Your task to perform on an android device: Search for Italian restaurants on Maps Image 0: 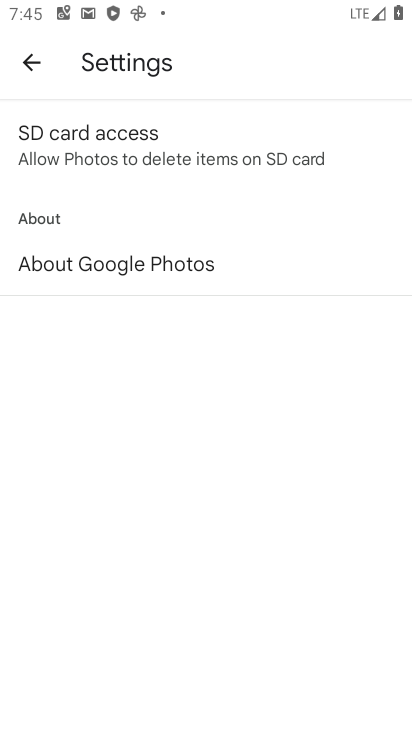
Step 0: press home button
Your task to perform on an android device: Search for Italian restaurants on Maps Image 1: 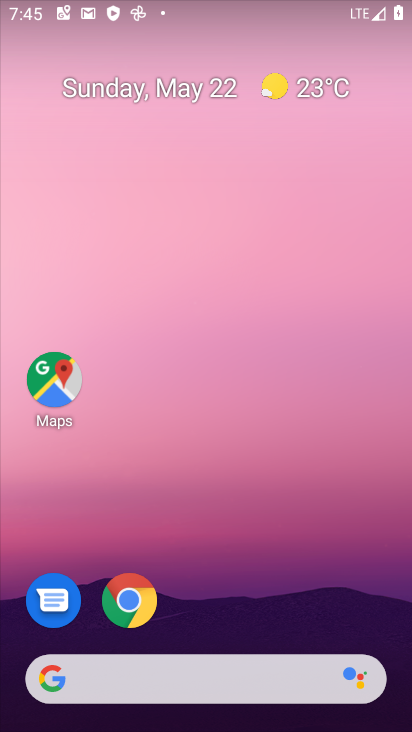
Step 1: drag from (322, 612) to (206, 67)
Your task to perform on an android device: Search for Italian restaurants on Maps Image 2: 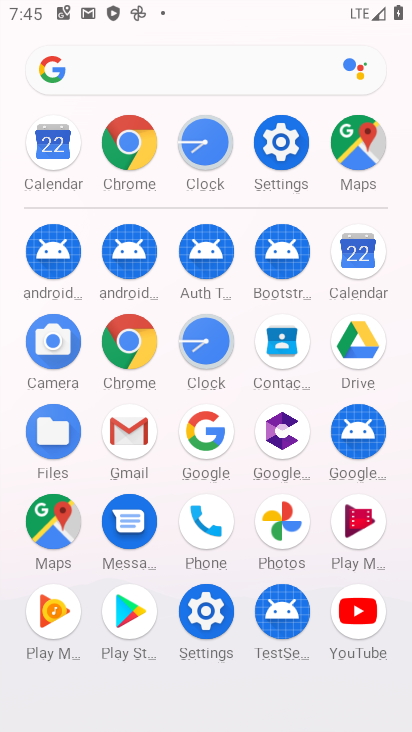
Step 2: click (355, 166)
Your task to perform on an android device: Search for Italian restaurants on Maps Image 3: 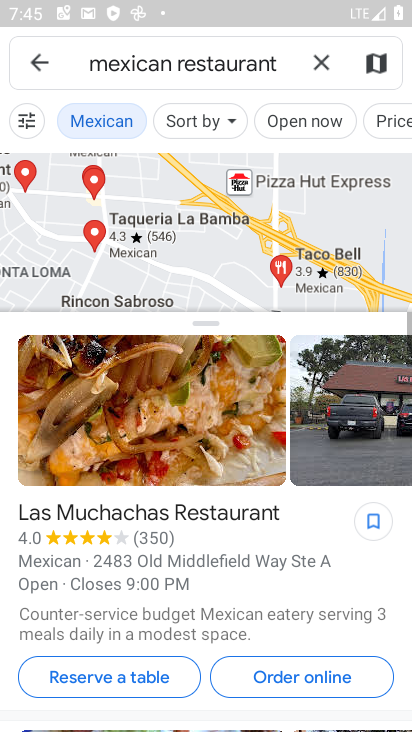
Step 3: click (326, 65)
Your task to perform on an android device: Search for Italian restaurants on Maps Image 4: 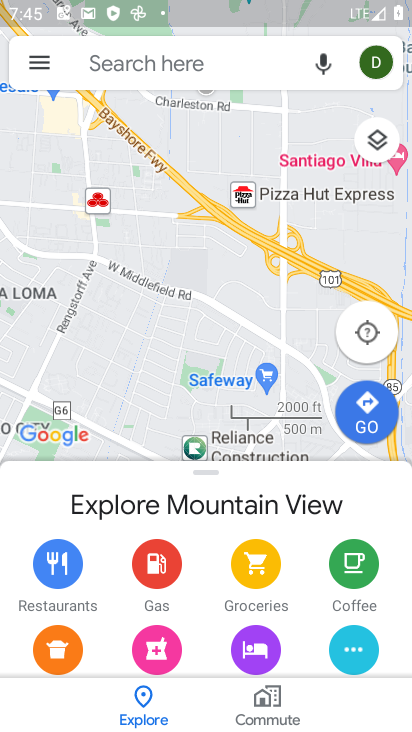
Step 4: click (179, 68)
Your task to perform on an android device: Search for Italian restaurants on Maps Image 5: 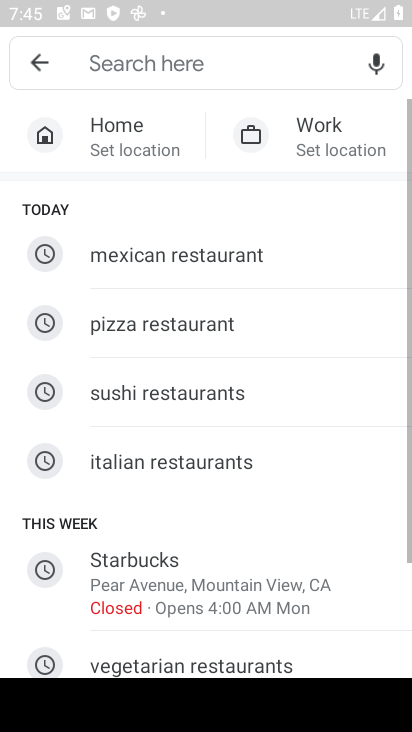
Step 5: click (178, 471)
Your task to perform on an android device: Search for Italian restaurants on Maps Image 6: 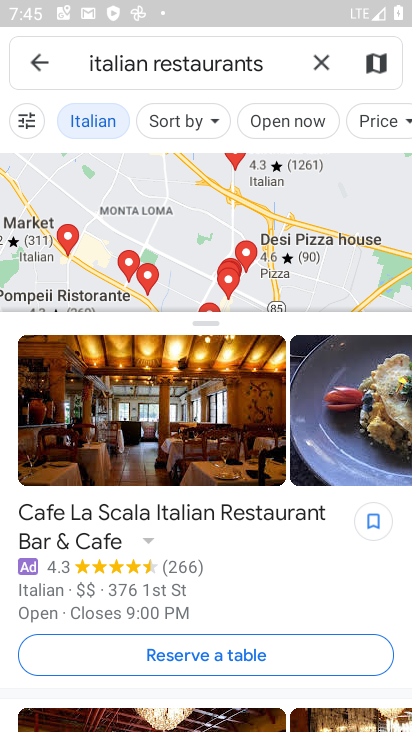
Step 6: task complete